Your task to perform on an android device: Is it going to rain today? Image 0: 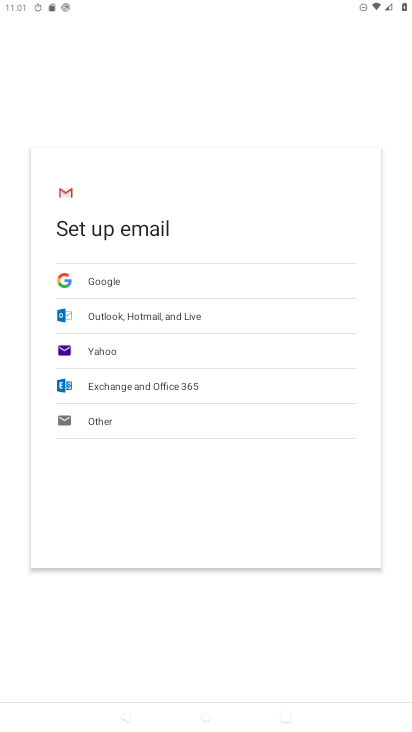
Step 0: press home button
Your task to perform on an android device: Is it going to rain today? Image 1: 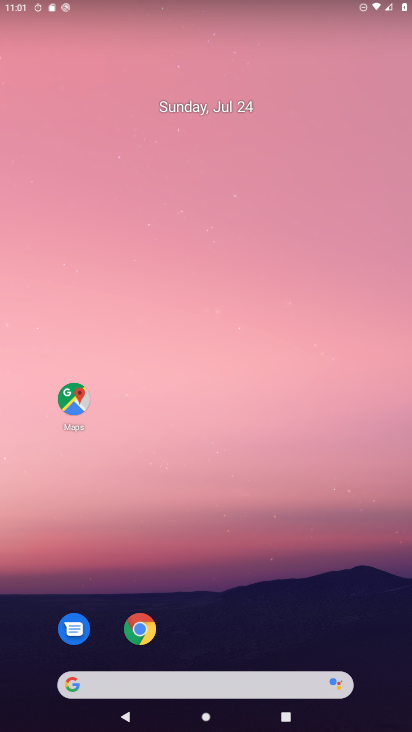
Step 1: drag from (232, 643) to (200, 105)
Your task to perform on an android device: Is it going to rain today? Image 2: 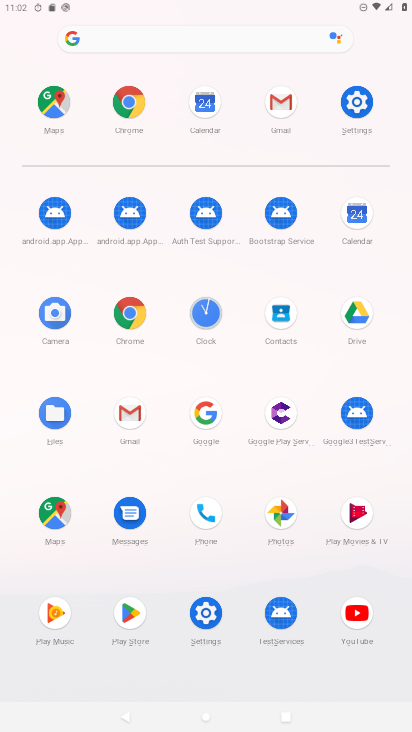
Step 2: click (205, 429)
Your task to perform on an android device: Is it going to rain today? Image 3: 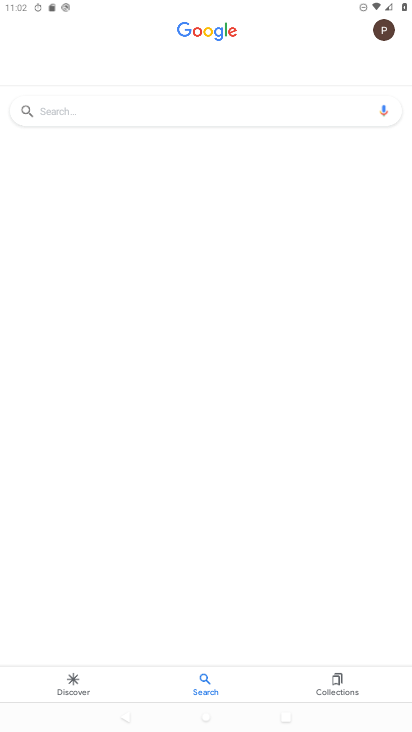
Step 3: click (189, 118)
Your task to perform on an android device: Is it going to rain today? Image 4: 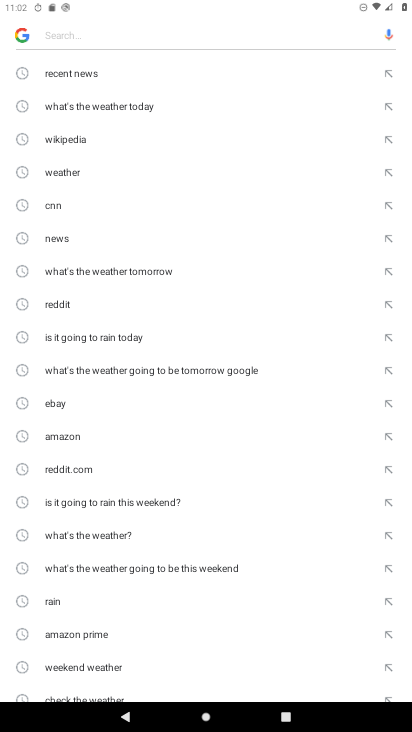
Step 4: click (66, 174)
Your task to perform on an android device: Is it going to rain today? Image 5: 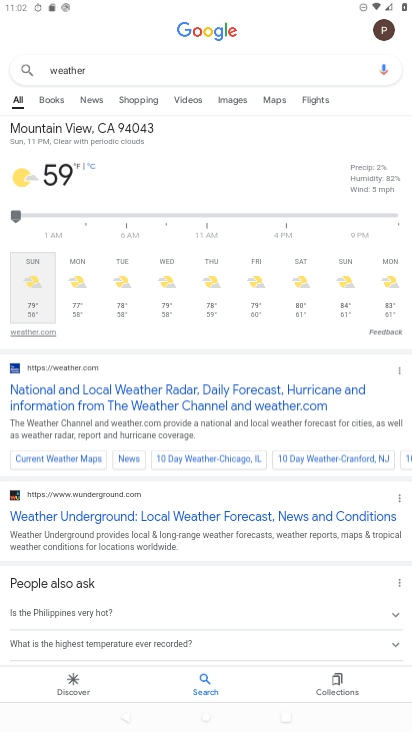
Step 5: task complete